Your task to perform on an android device: turn on translation in the chrome app Image 0: 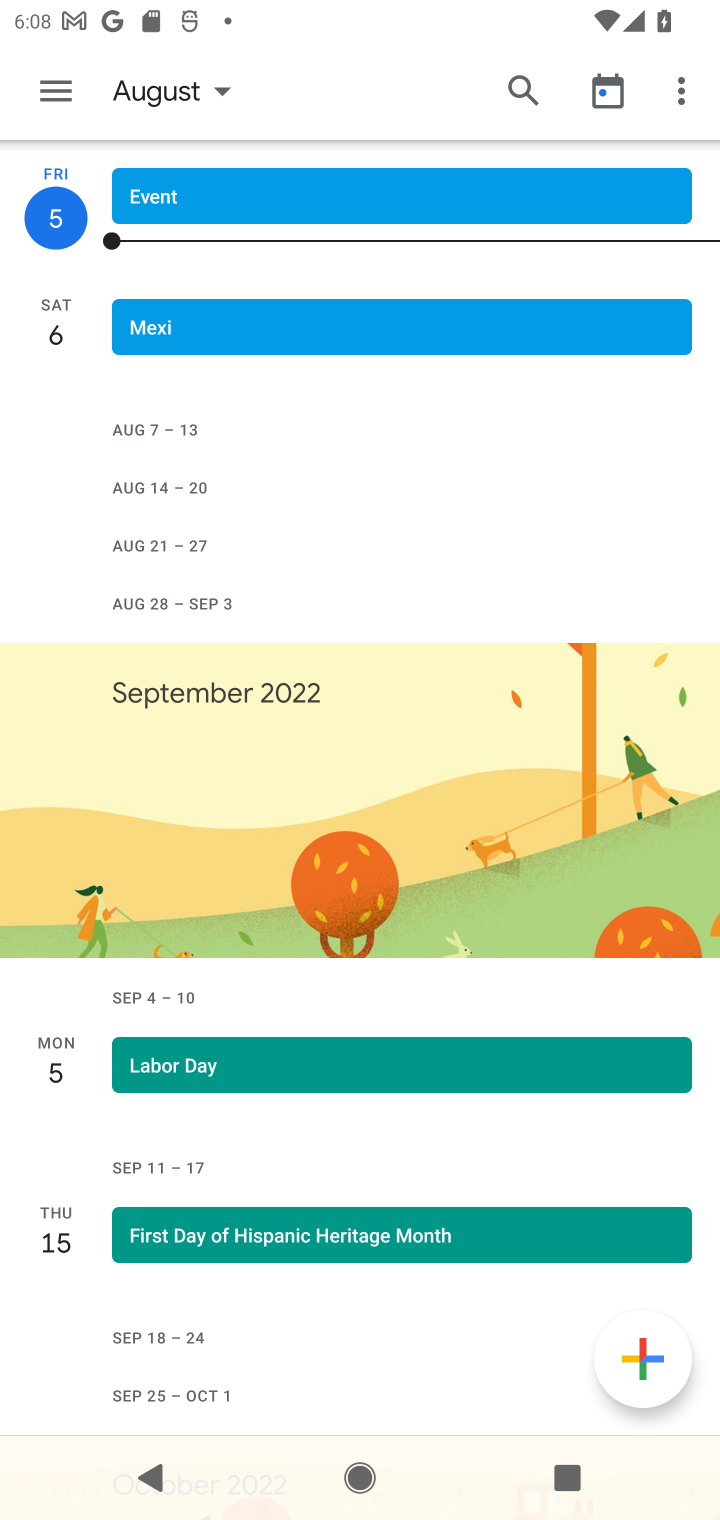
Step 0: press home button
Your task to perform on an android device: turn on translation in the chrome app Image 1: 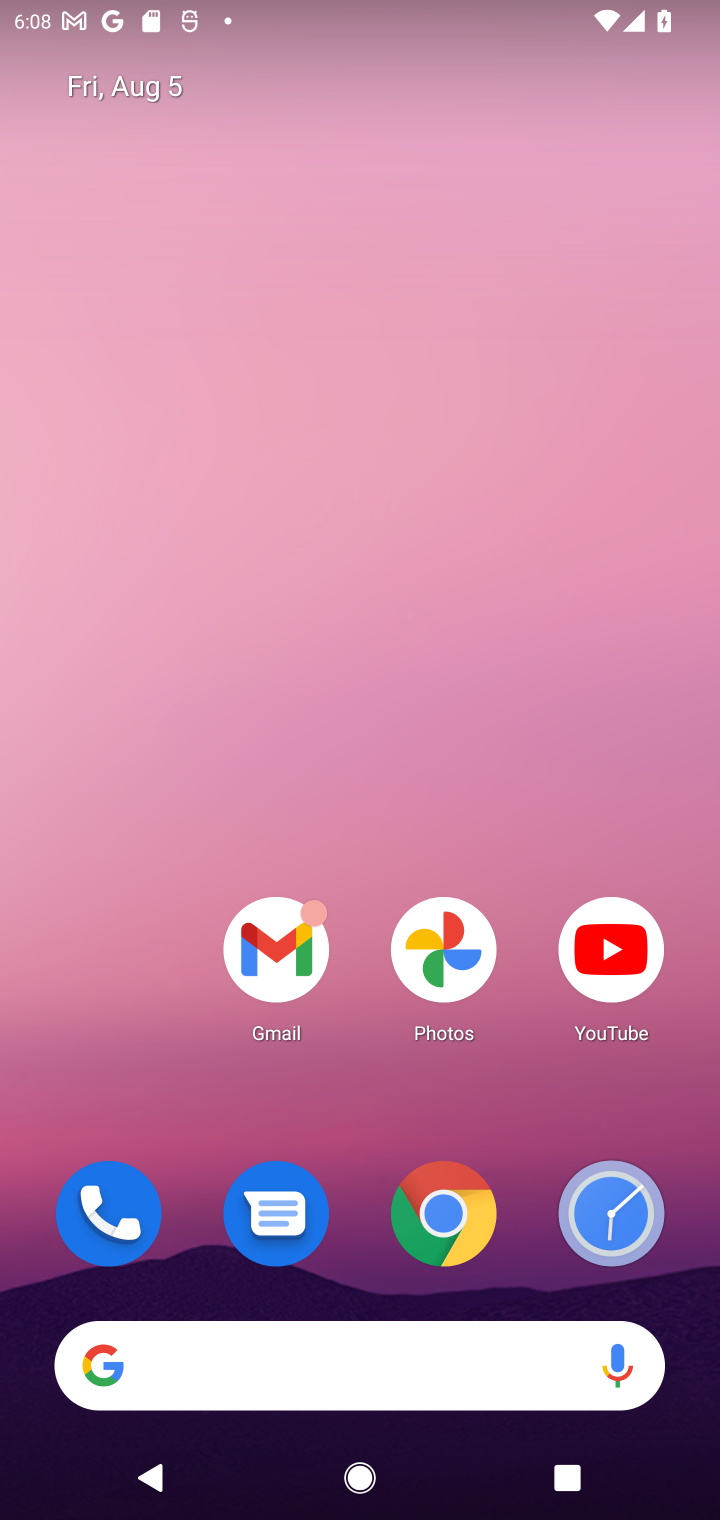
Step 1: drag from (374, 1302) to (512, 160)
Your task to perform on an android device: turn on translation in the chrome app Image 2: 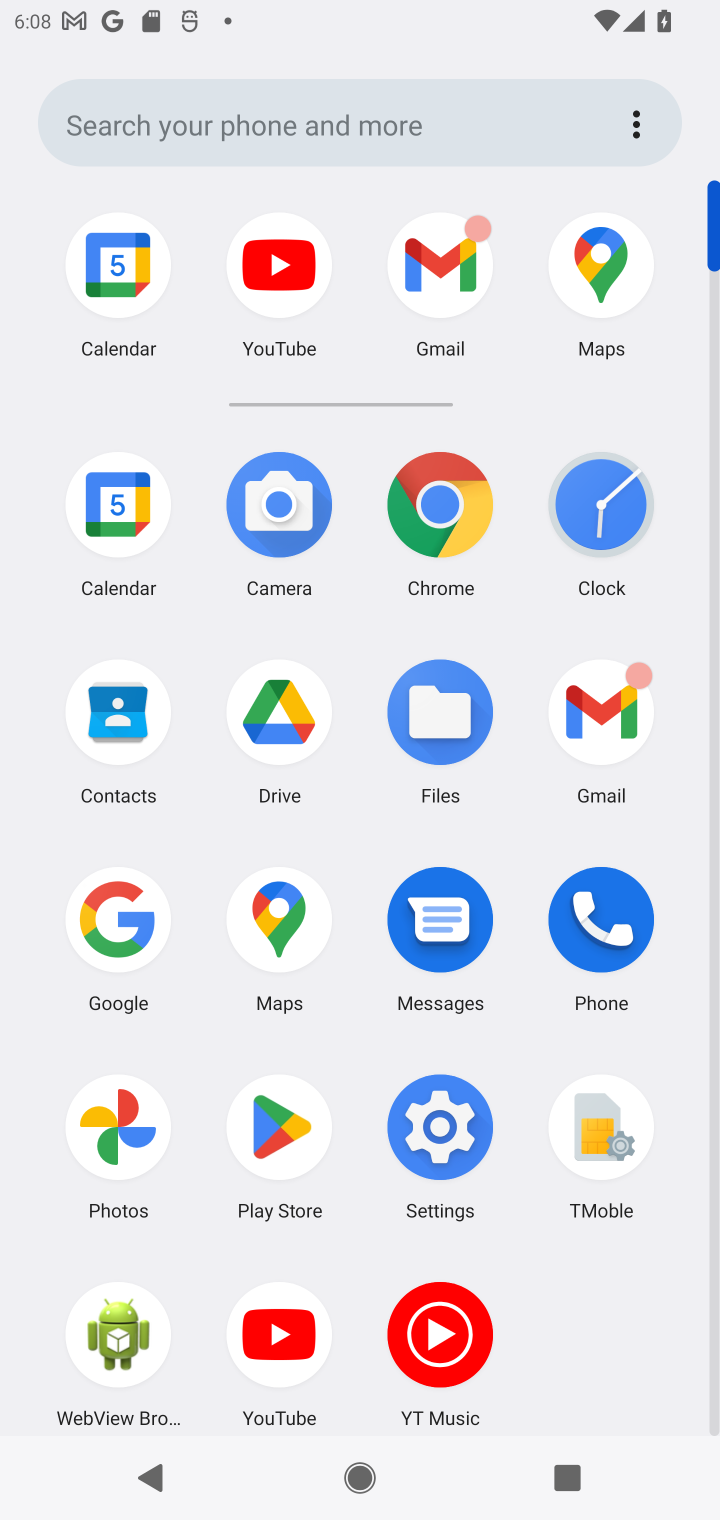
Step 2: click (466, 522)
Your task to perform on an android device: turn on translation in the chrome app Image 3: 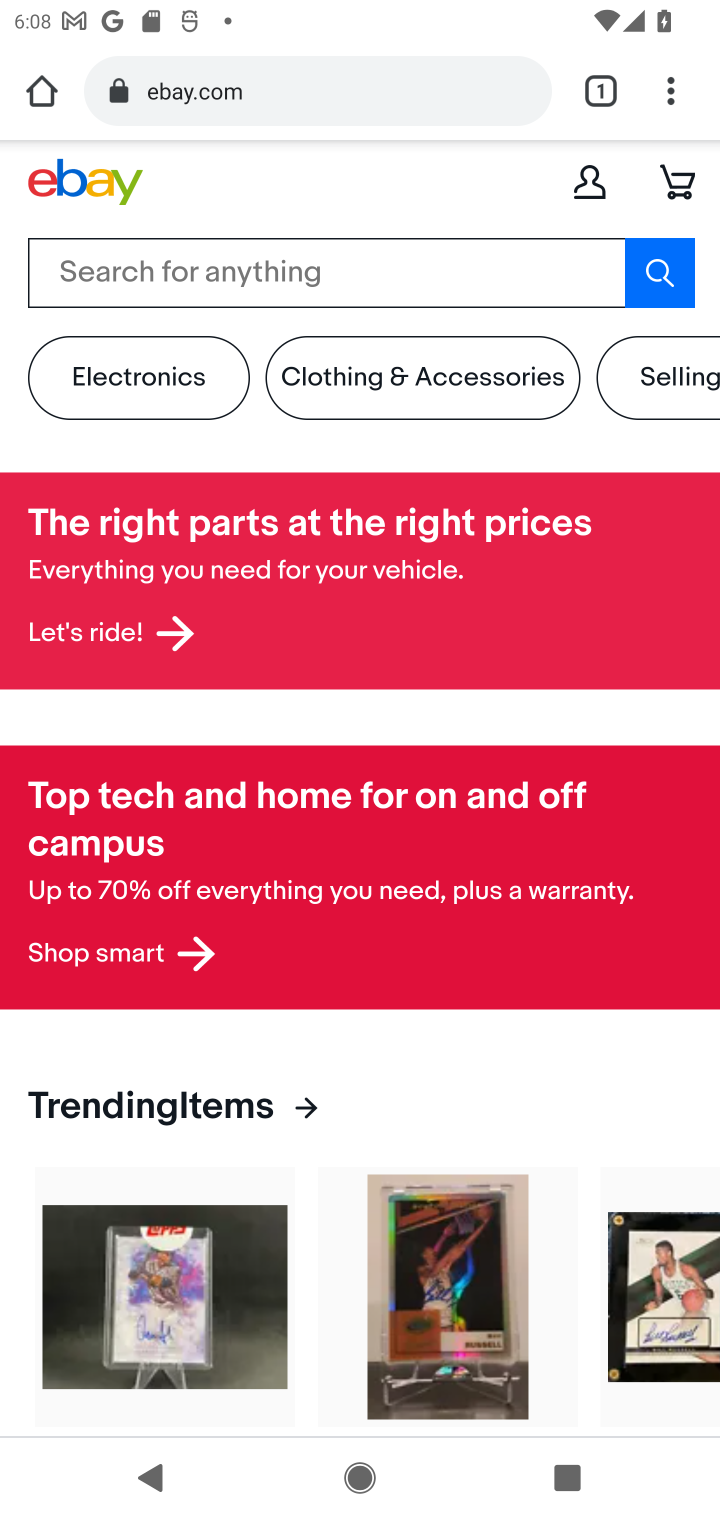
Step 3: click (672, 84)
Your task to perform on an android device: turn on translation in the chrome app Image 4: 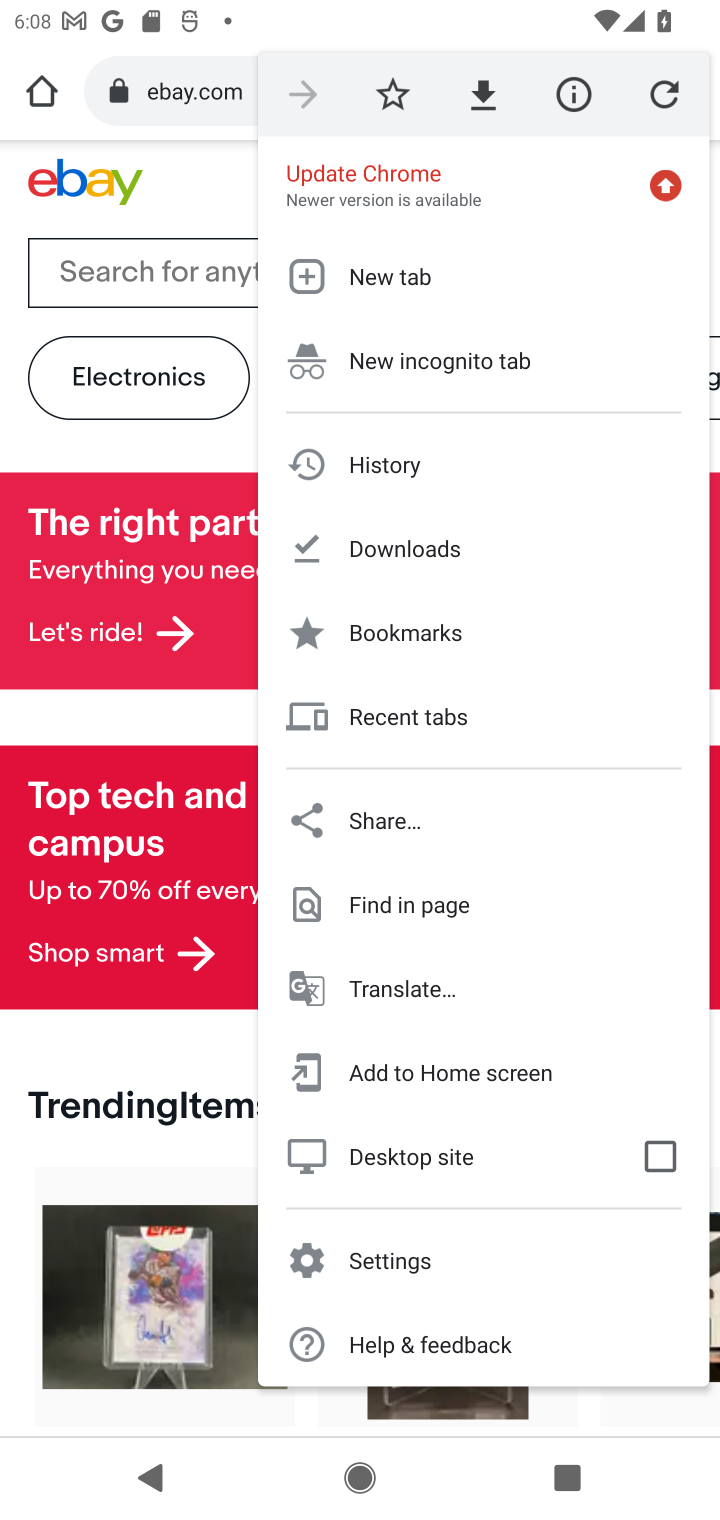
Step 4: click (395, 1250)
Your task to perform on an android device: turn on translation in the chrome app Image 5: 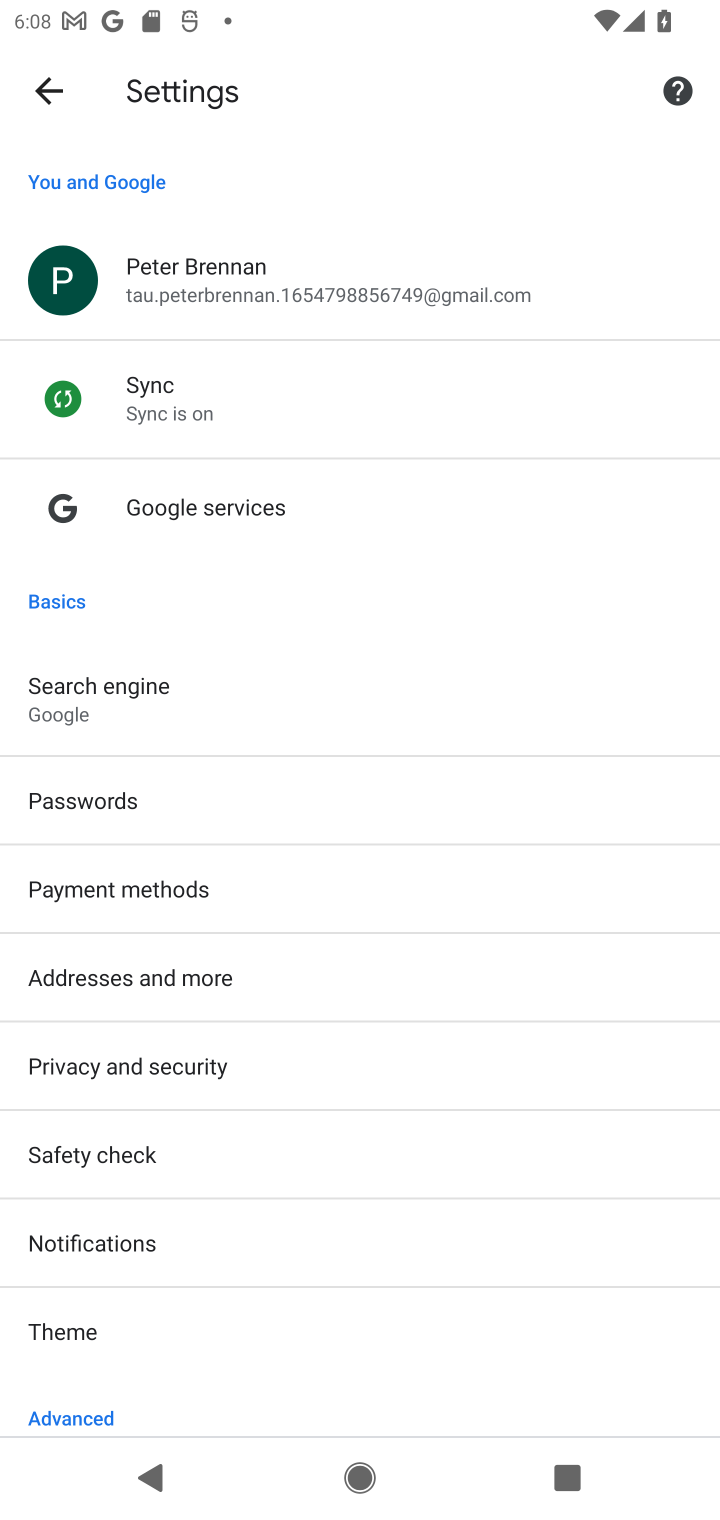
Step 5: task complete